Your task to perform on an android device: change the clock style Image 0: 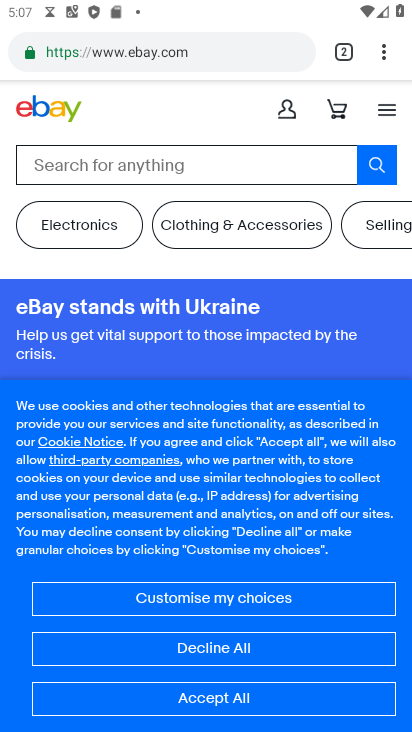
Step 0: press home button
Your task to perform on an android device: change the clock style Image 1: 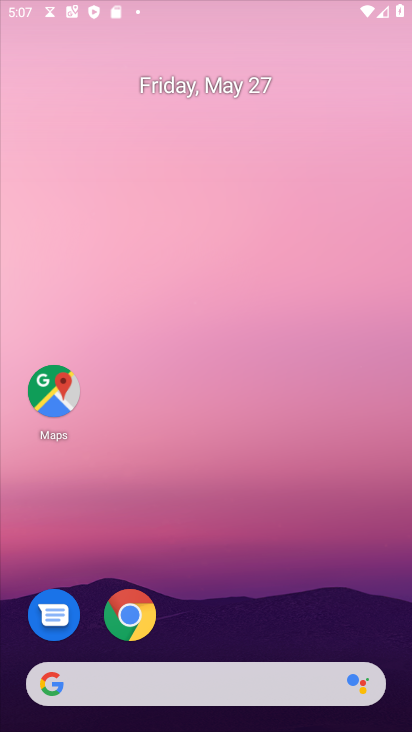
Step 1: drag from (368, 511) to (185, 2)
Your task to perform on an android device: change the clock style Image 2: 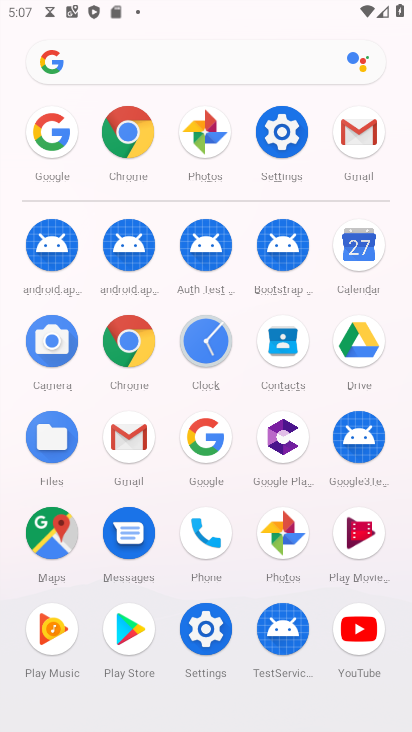
Step 2: click (201, 351)
Your task to perform on an android device: change the clock style Image 3: 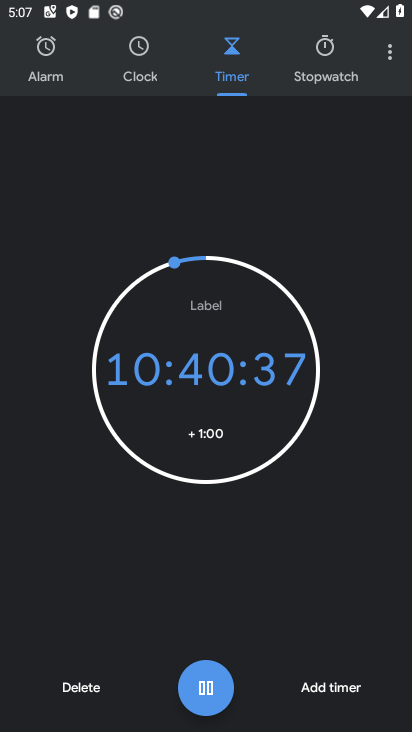
Step 3: click (384, 49)
Your task to perform on an android device: change the clock style Image 4: 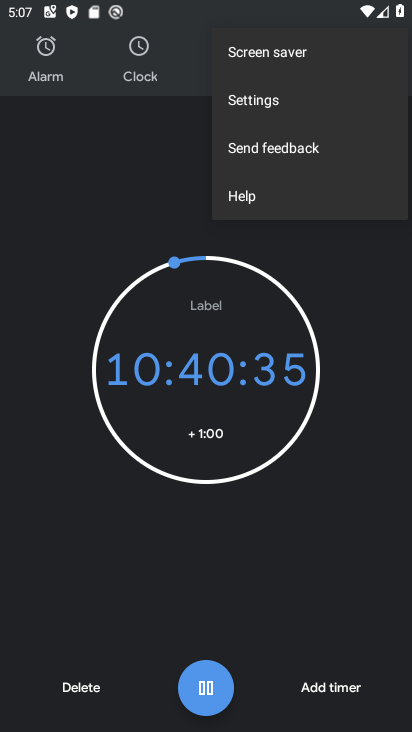
Step 4: click (242, 95)
Your task to perform on an android device: change the clock style Image 5: 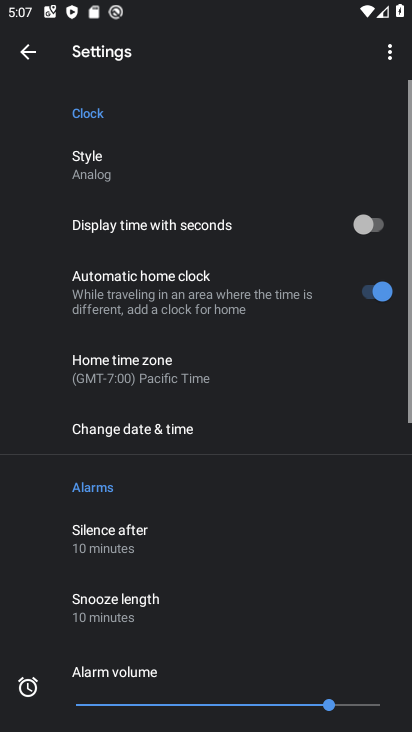
Step 5: click (155, 165)
Your task to perform on an android device: change the clock style Image 6: 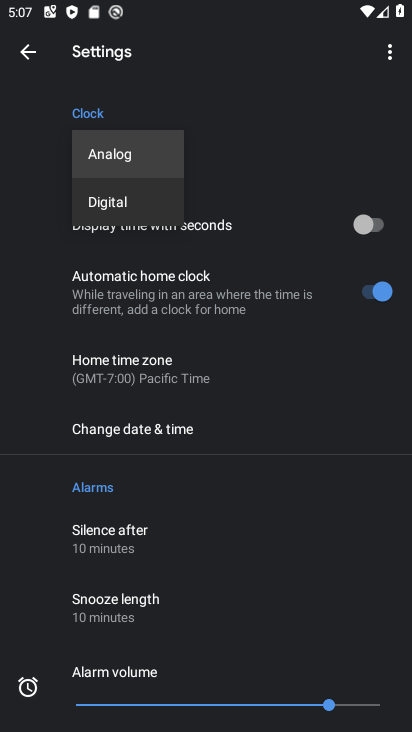
Step 6: click (135, 195)
Your task to perform on an android device: change the clock style Image 7: 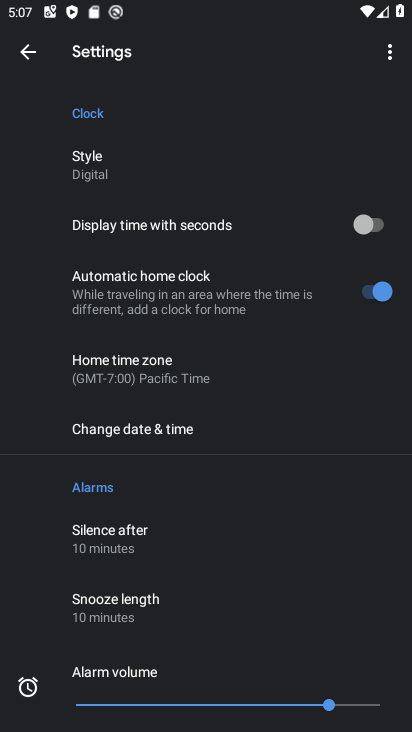
Step 7: task complete